Your task to perform on an android device: Toggle the flashlight Image 0: 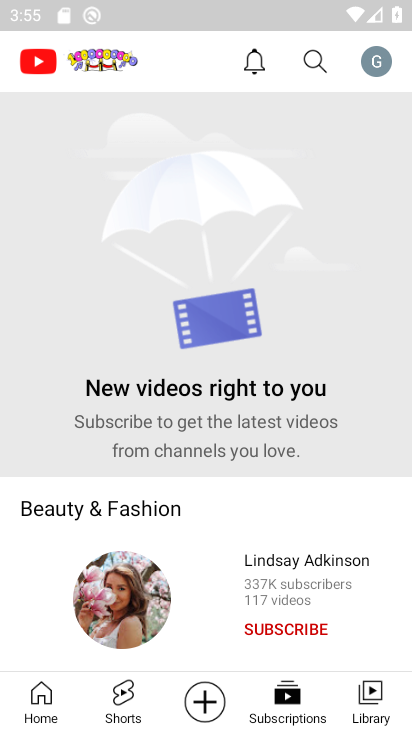
Step 0: press home button
Your task to perform on an android device: Toggle the flashlight Image 1: 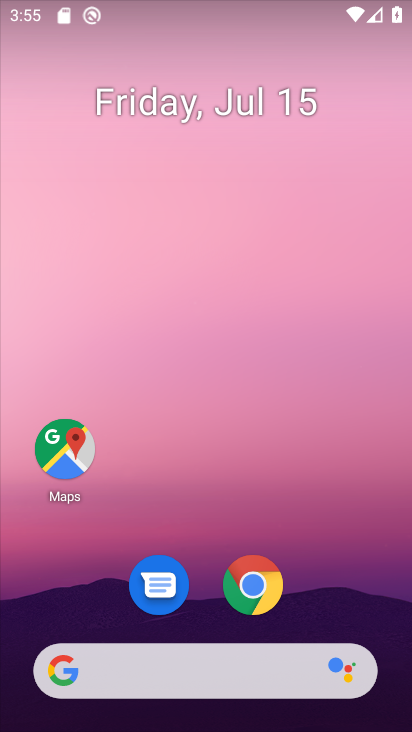
Step 1: drag from (241, 524) to (275, 18)
Your task to perform on an android device: Toggle the flashlight Image 2: 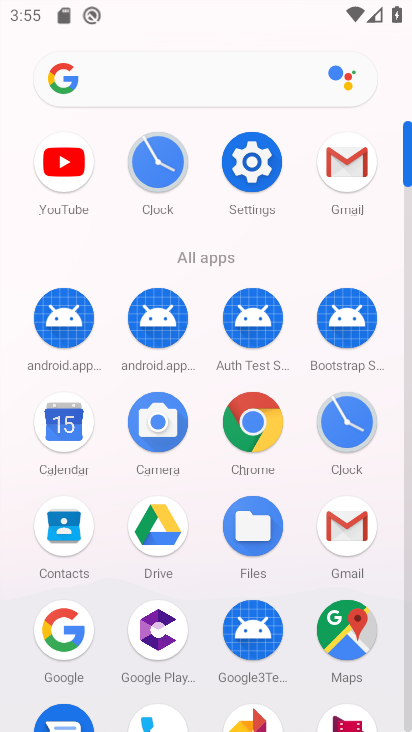
Step 2: click (266, 166)
Your task to perform on an android device: Toggle the flashlight Image 3: 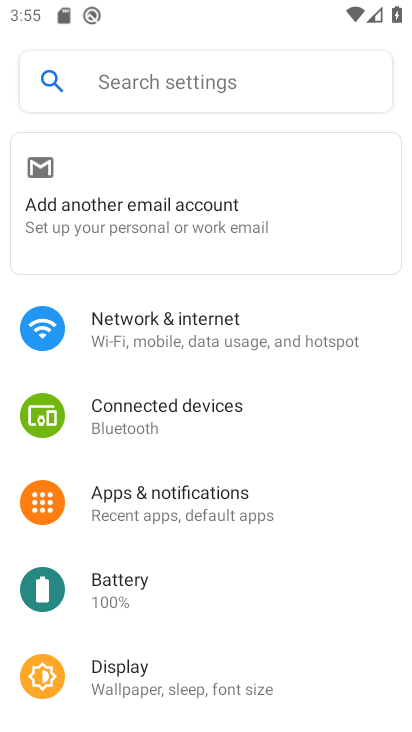
Step 3: click (223, 80)
Your task to perform on an android device: Toggle the flashlight Image 4: 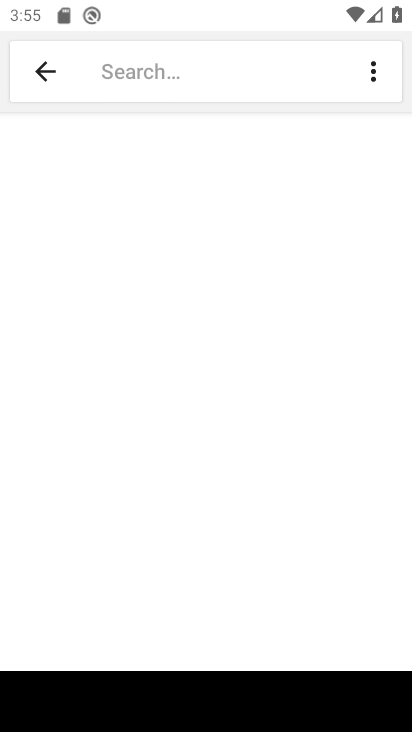
Step 4: type "Flashlight"
Your task to perform on an android device: Toggle the flashlight Image 5: 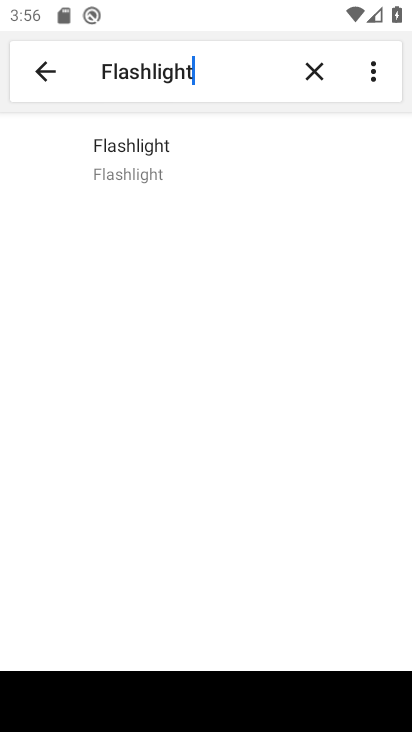
Step 5: click (144, 157)
Your task to perform on an android device: Toggle the flashlight Image 6: 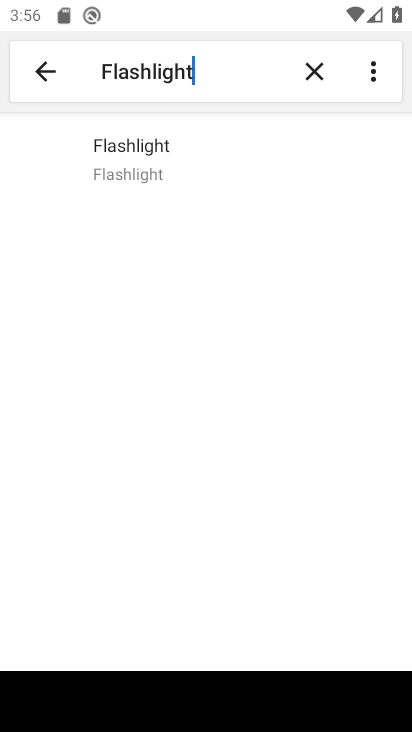
Step 6: click (146, 157)
Your task to perform on an android device: Toggle the flashlight Image 7: 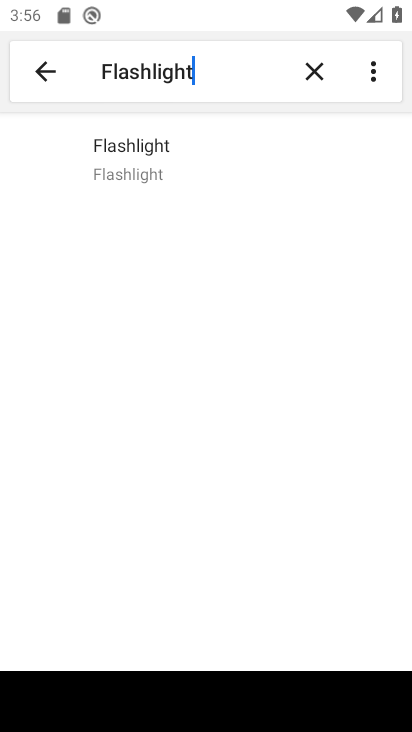
Step 7: task complete